Your task to perform on an android device: Search for vegetarian restaurants on Maps Image 0: 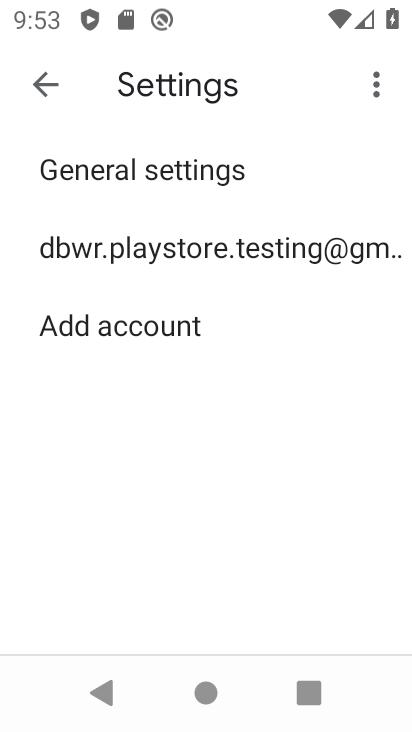
Step 0: press home button
Your task to perform on an android device: Search for vegetarian restaurants on Maps Image 1: 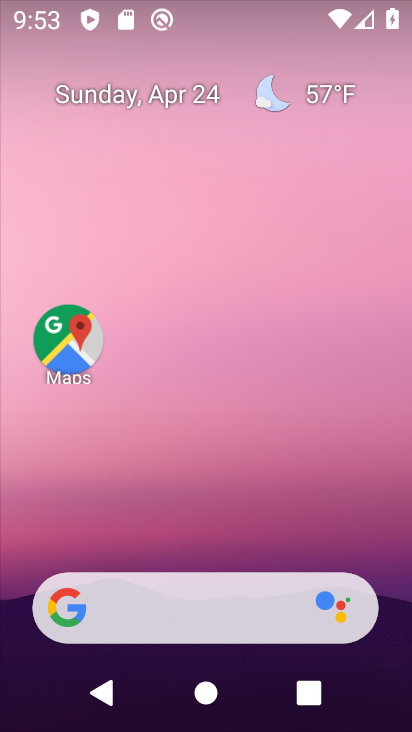
Step 1: drag from (216, 727) to (213, 222)
Your task to perform on an android device: Search for vegetarian restaurants on Maps Image 2: 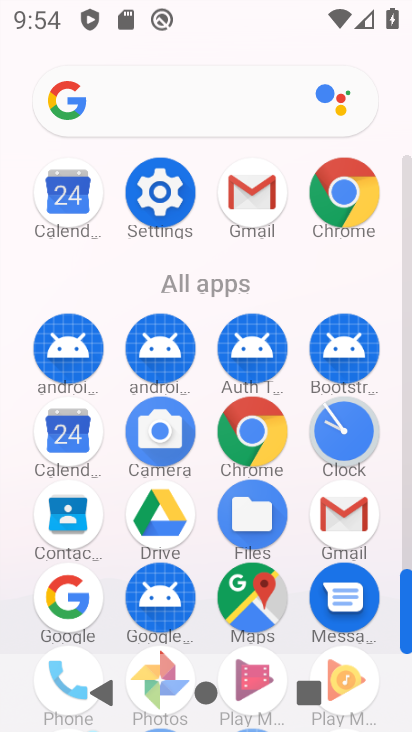
Step 2: click (247, 599)
Your task to perform on an android device: Search for vegetarian restaurants on Maps Image 3: 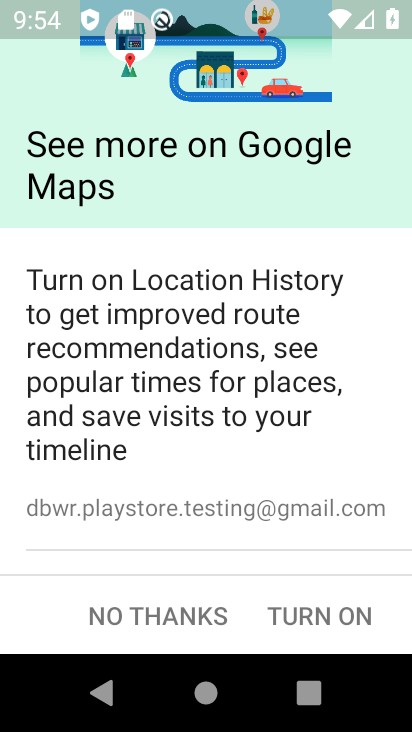
Step 3: click (325, 617)
Your task to perform on an android device: Search for vegetarian restaurants on Maps Image 4: 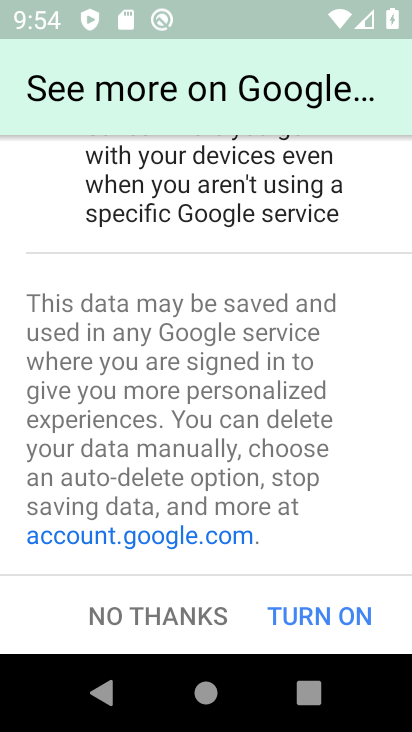
Step 4: click (305, 613)
Your task to perform on an android device: Search for vegetarian restaurants on Maps Image 5: 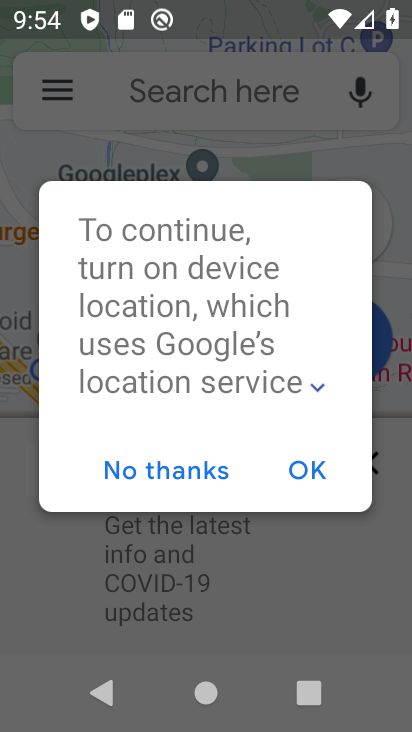
Step 5: click (300, 469)
Your task to perform on an android device: Search for vegetarian restaurants on Maps Image 6: 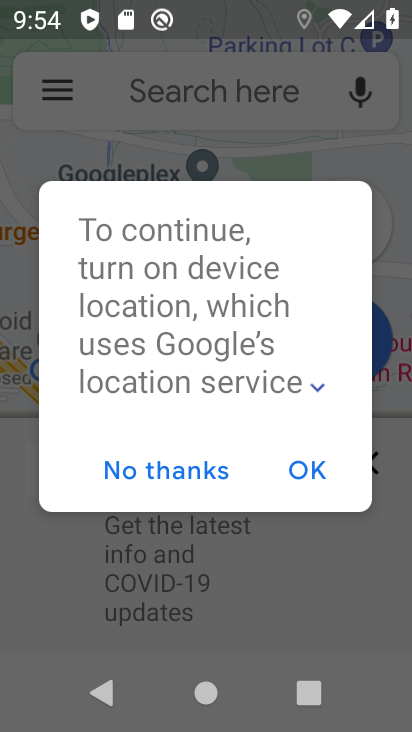
Step 6: click (310, 465)
Your task to perform on an android device: Search for vegetarian restaurants on Maps Image 7: 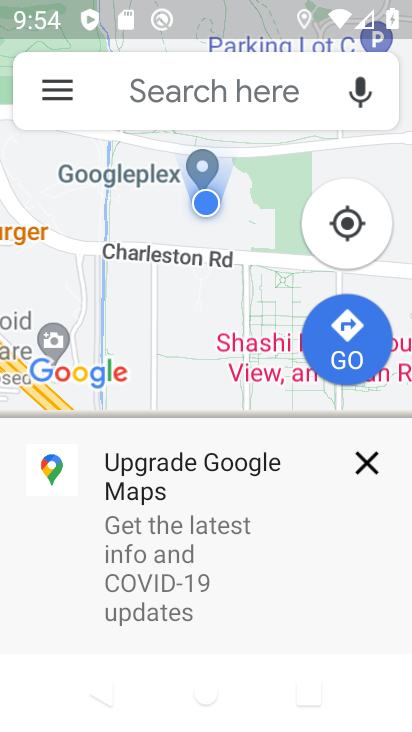
Step 7: click (191, 103)
Your task to perform on an android device: Search for vegetarian restaurants on Maps Image 8: 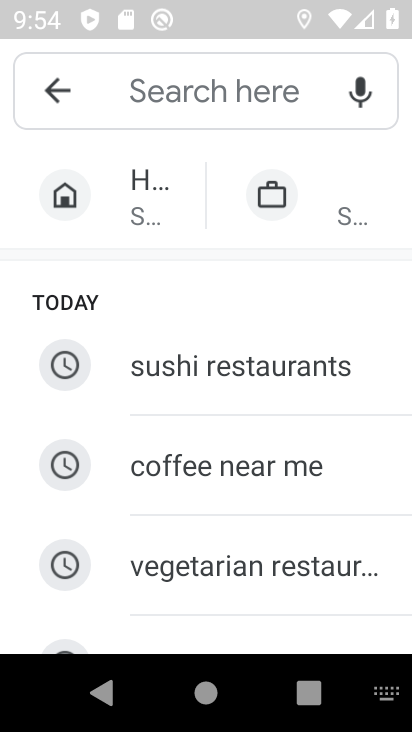
Step 8: type "vegetarian restaurants"
Your task to perform on an android device: Search for vegetarian restaurants on Maps Image 9: 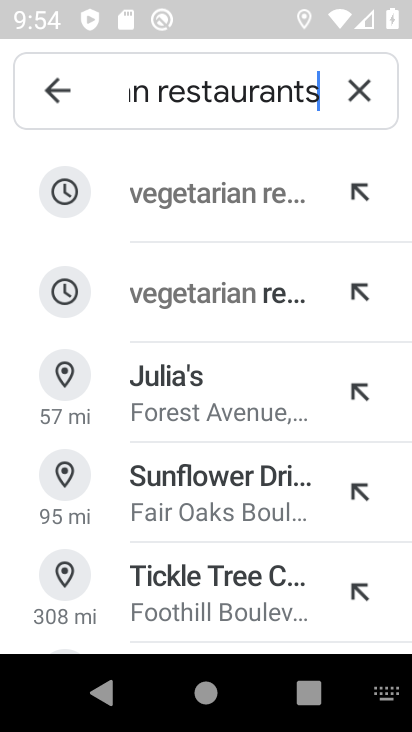
Step 9: click (271, 192)
Your task to perform on an android device: Search for vegetarian restaurants on Maps Image 10: 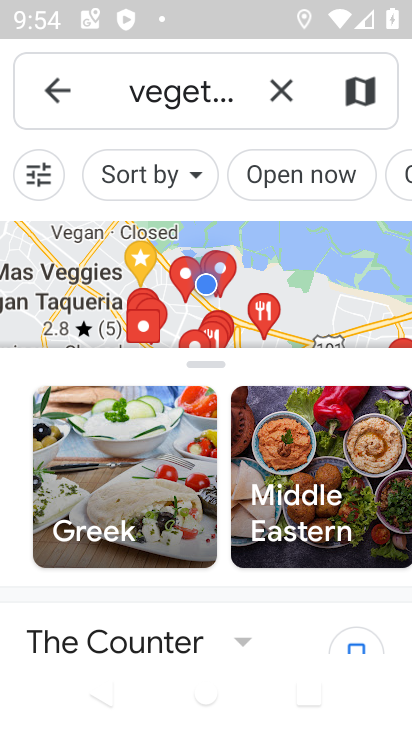
Step 10: task complete